Your task to perform on an android device: Open Android settings Image 0: 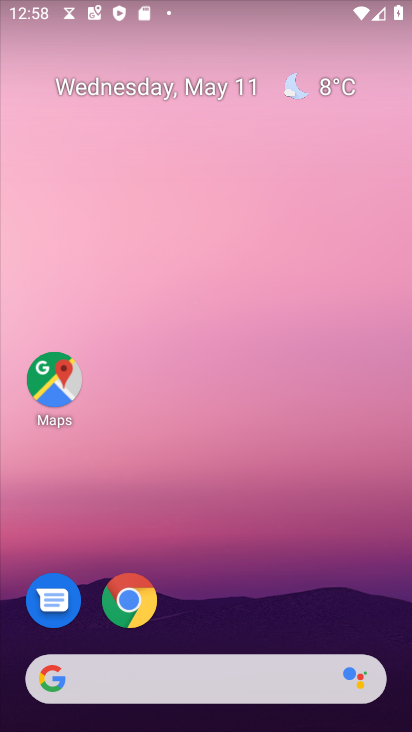
Step 0: drag from (249, 584) to (191, 69)
Your task to perform on an android device: Open Android settings Image 1: 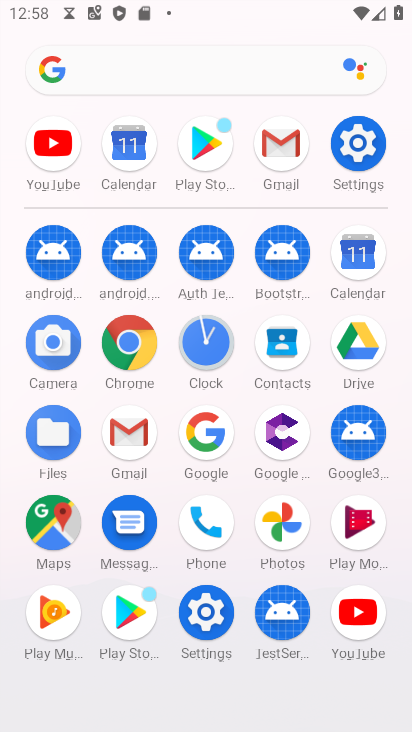
Step 1: click (369, 148)
Your task to perform on an android device: Open Android settings Image 2: 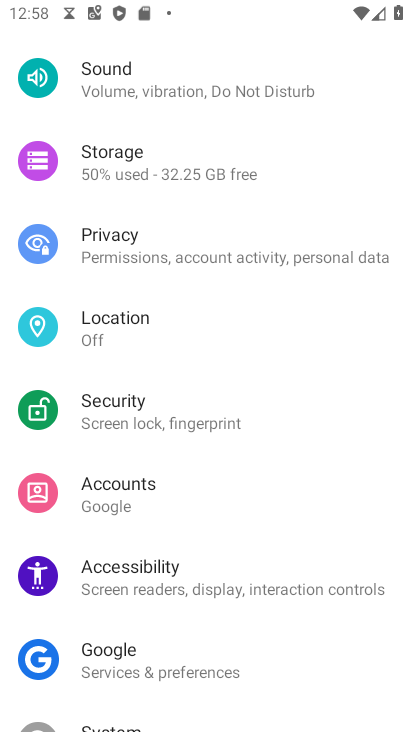
Step 2: drag from (266, 583) to (272, 112)
Your task to perform on an android device: Open Android settings Image 3: 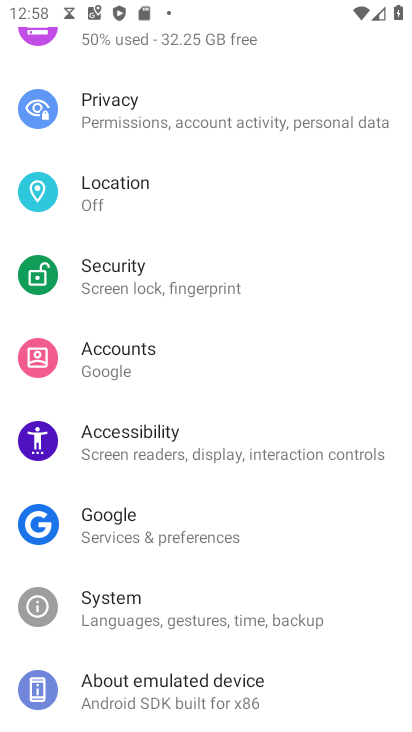
Step 3: click (224, 693)
Your task to perform on an android device: Open Android settings Image 4: 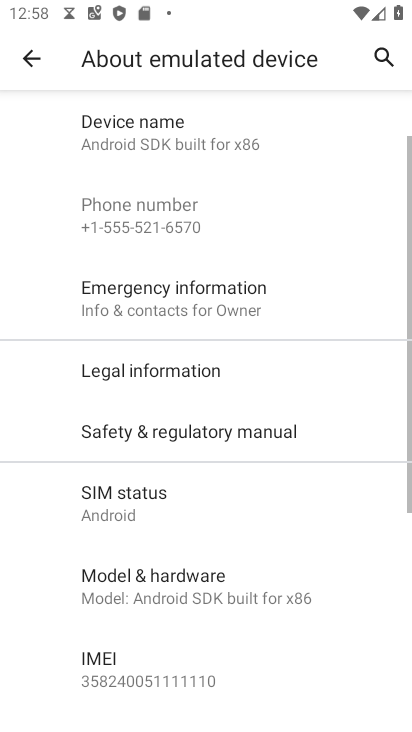
Step 4: drag from (214, 629) to (250, 221)
Your task to perform on an android device: Open Android settings Image 5: 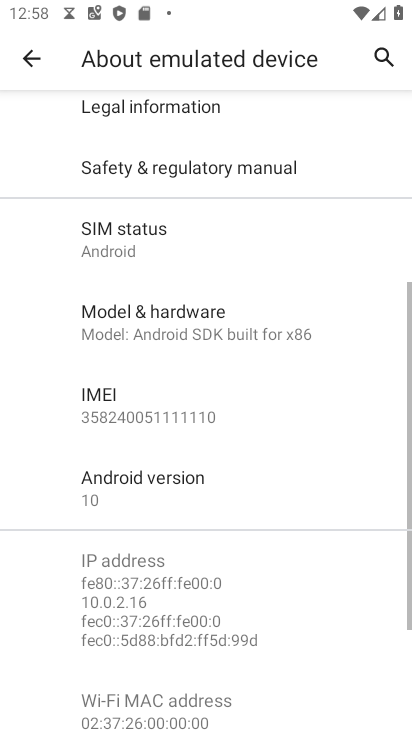
Step 5: click (172, 491)
Your task to perform on an android device: Open Android settings Image 6: 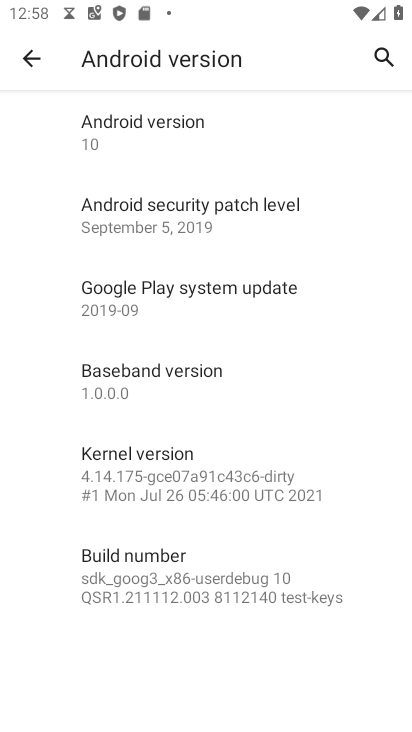
Step 6: click (170, 143)
Your task to perform on an android device: Open Android settings Image 7: 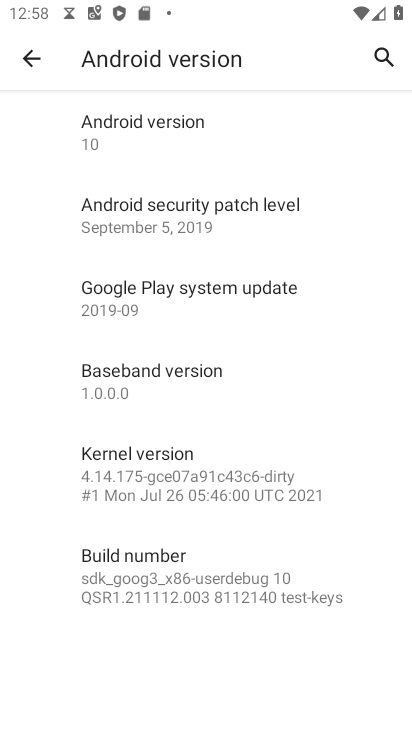
Step 7: task complete